Your task to perform on an android device: Go to Android settings Image 0: 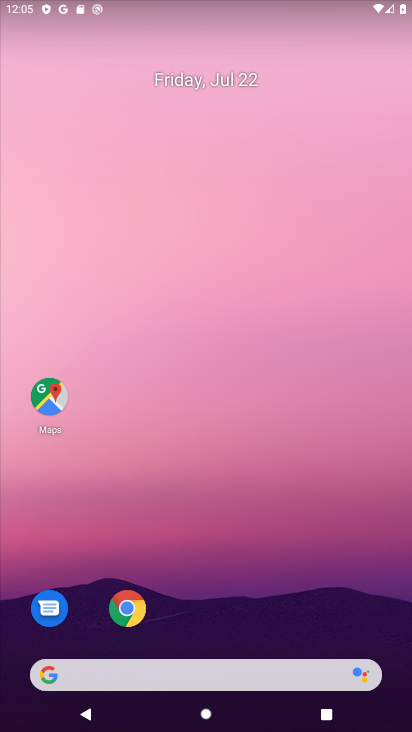
Step 0: press home button
Your task to perform on an android device: Go to Android settings Image 1: 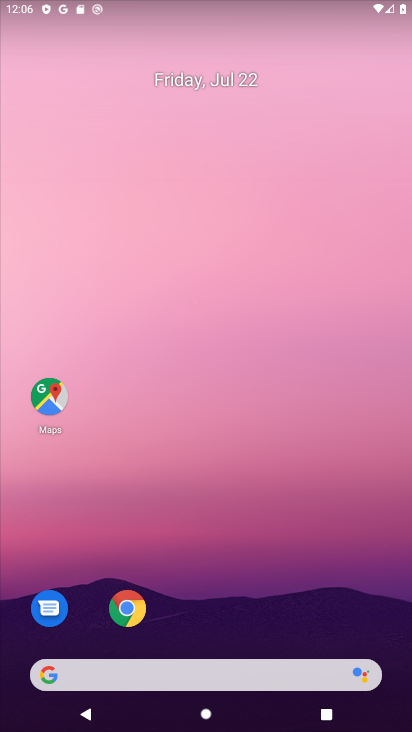
Step 1: drag from (224, 637) to (226, 131)
Your task to perform on an android device: Go to Android settings Image 2: 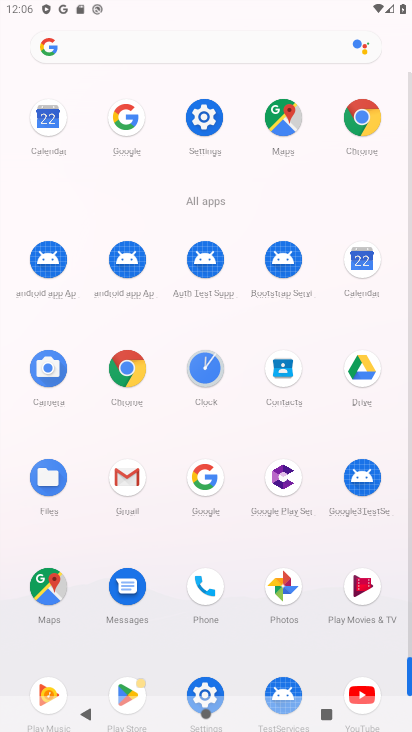
Step 2: click (201, 105)
Your task to perform on an android device: Go to Android settings Image 3: 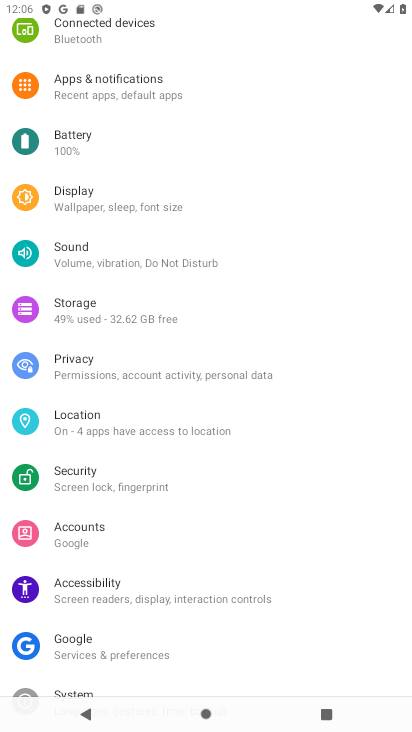
Step 3: drag from (134, 656) to (194, 138)
Your task to perform on an android device: Go to Android settings Image 4: 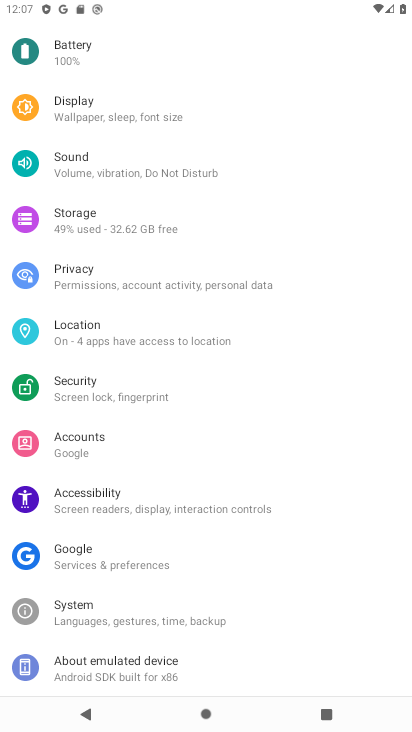
Step 4: click (139, 671)
Your task to perform on an android device: Go to Android settings Image 5: 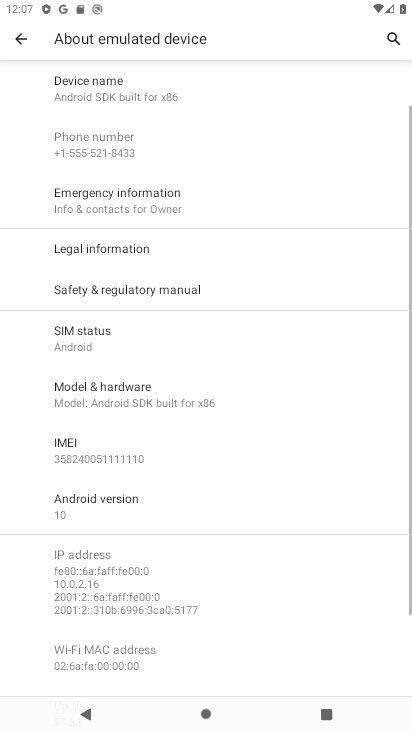
Step 5: click (139, 671)
Your task to perform on an android device: Go to Android settings Image 6: 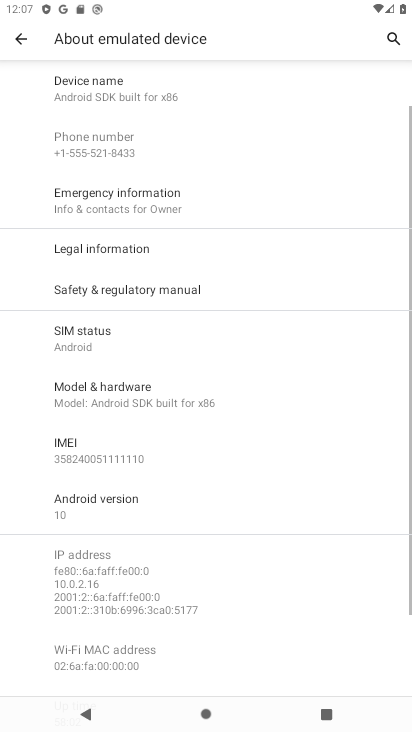
Step 6: click (100, 510)
Your task to perform on an android device: Go to Android settings Image 7: 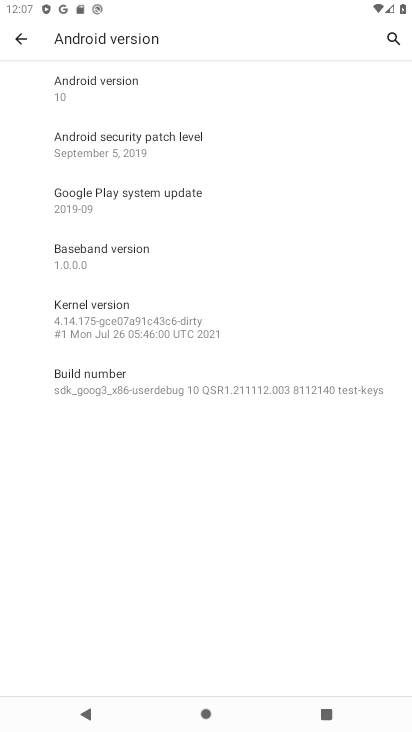
Step 7: task complete